Your task to perform on an android device: turn on showing notifications on the lock screen Image 0: 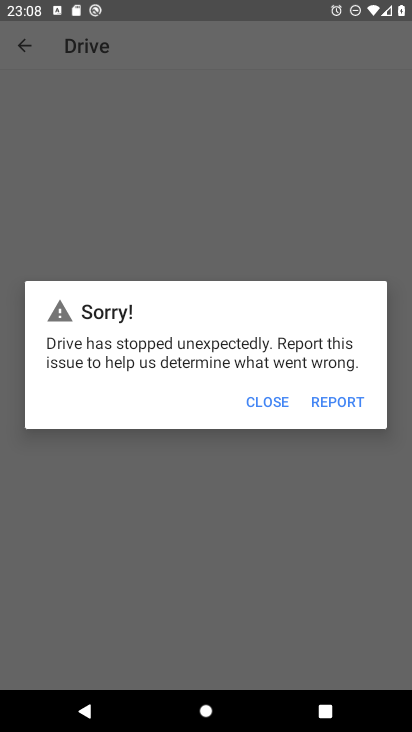
Step 0: press home button
Your task to perform on an android device: turn on showing notifications on the lock screen Image 1: 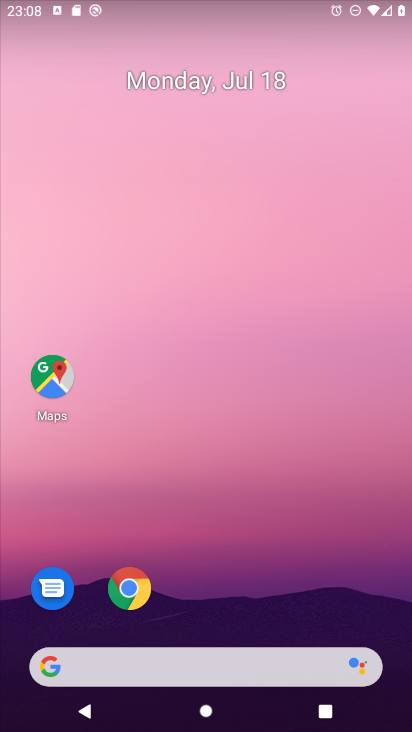
Step 1: drag from (359, 448) to (326, 160)
Your task to perform on an android device: turn on showing notifications on the lock screen Image 2: 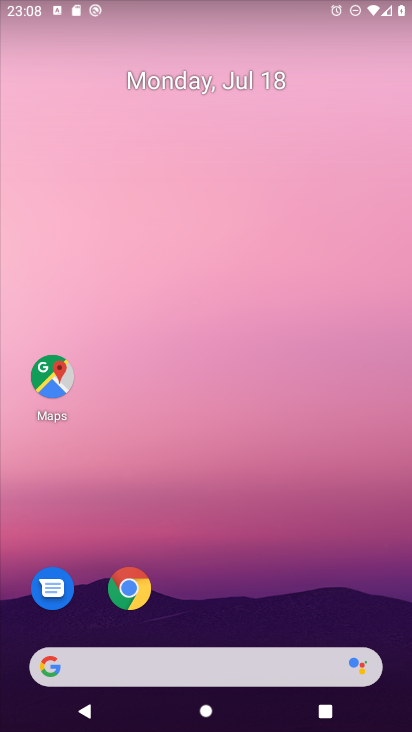
Step 2: drag from (392, 659) to (309, 109)
Your task to perform on an android device: turn on showing notifications on the lock screen Image 3: 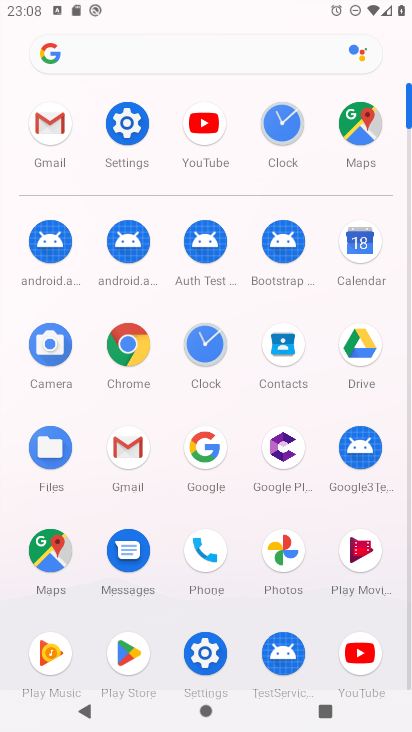
Step 3: click (203, 655)
Your task to perform on an android device: turn on showing notifications on the lock screen Image 4: 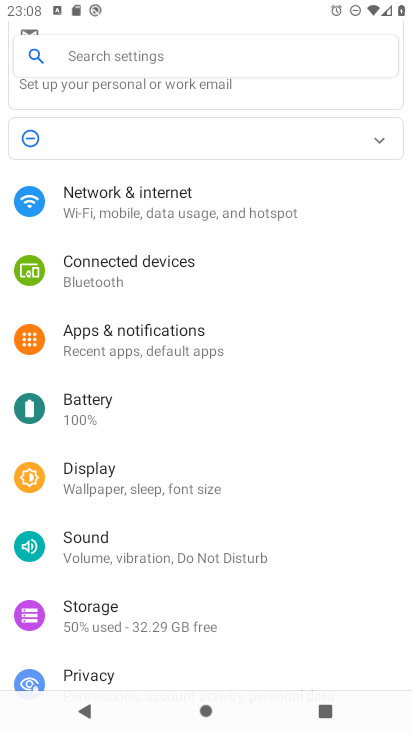
Step 4: click (108, 340)
Your task to perform on an android device: turn on showing notifications on the lock screen Image 5: 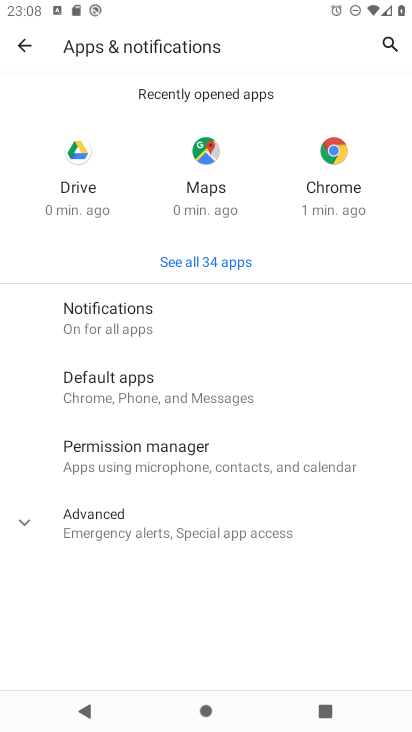
Step 5: click (97, 318)
Your task to perform on an android device: turn on showing notifications on the lock screen Image 6: 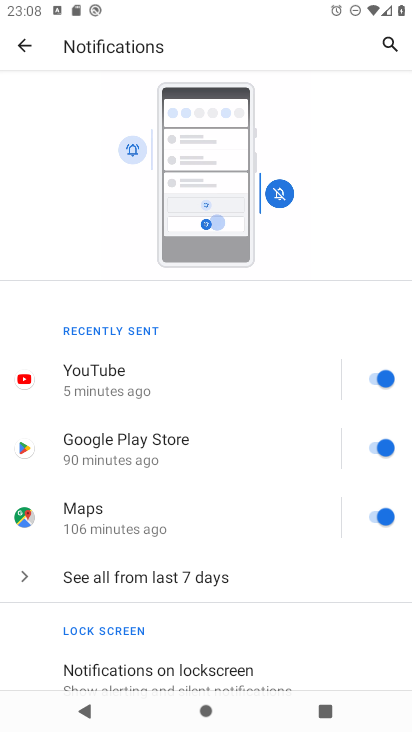
Step 6: drag from (330, 618) to (337, 141)
Your task to perform on an android device: turn on showing notifications on the lock screen Image 7: 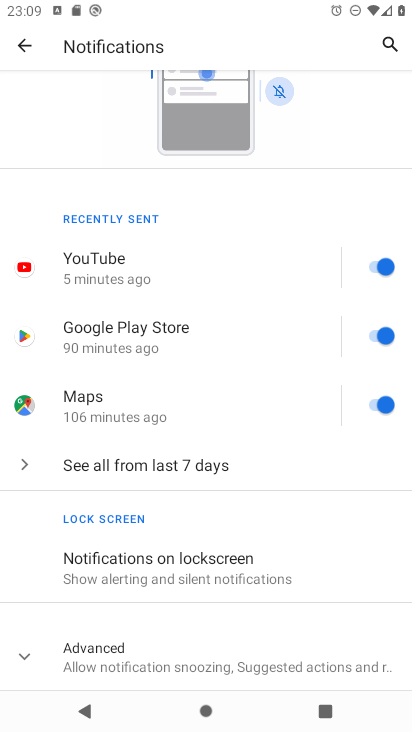
Step 7: click (115, 553)
Your task to perform on an android device: turn on showing notifications on the lock screen Image 8: 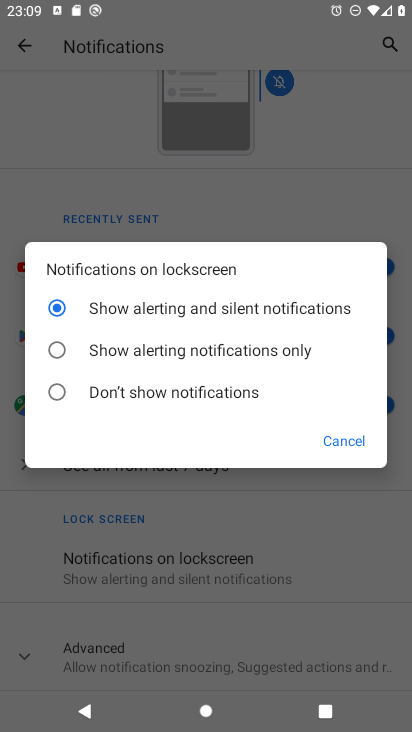
Step 8: task complete